Your task to perform on an android device: Open Google Chrome and open the bookmarks view Image 0: 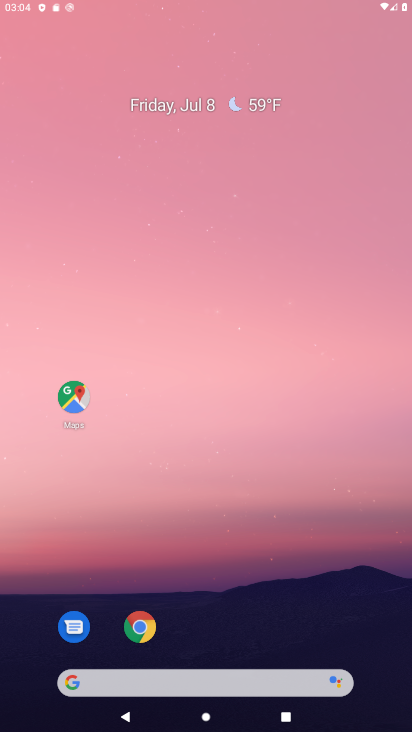
Step 0: press home button
Your task to perform on an android device: Open Google Chrome and open the bookmarks view Image 1: 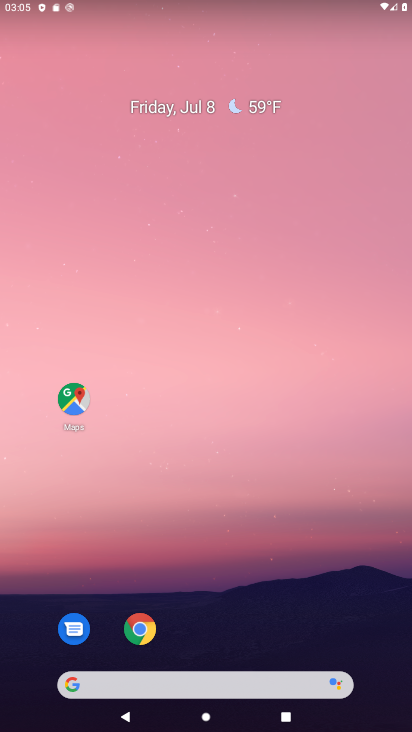
Step 1: click (139, 623)
Your task to perform on an android device: Open Google Chrome and open the bookmarks view Image 2: 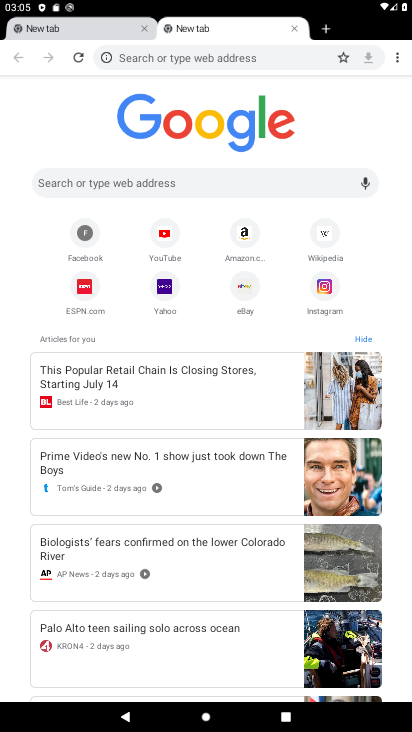
Step 2: click (400, 59)
Your task to perform on an android device: Open Google Chrome and open the bookmarks view Image 3: 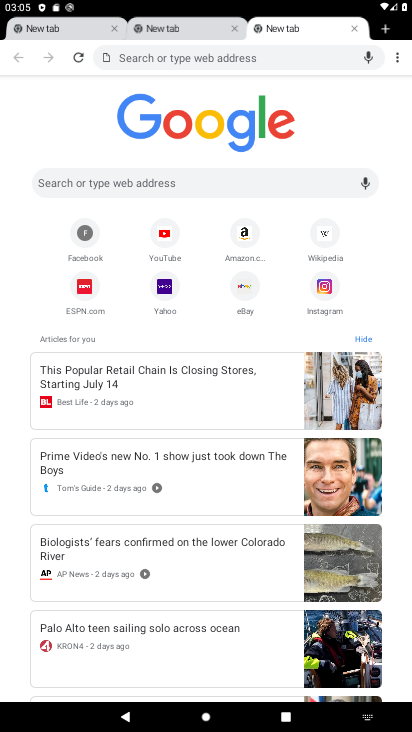
Step 3: click (400, 59)
Your task to perform on an android device: Open Google Chrome and open the bookmarks view Image 4: 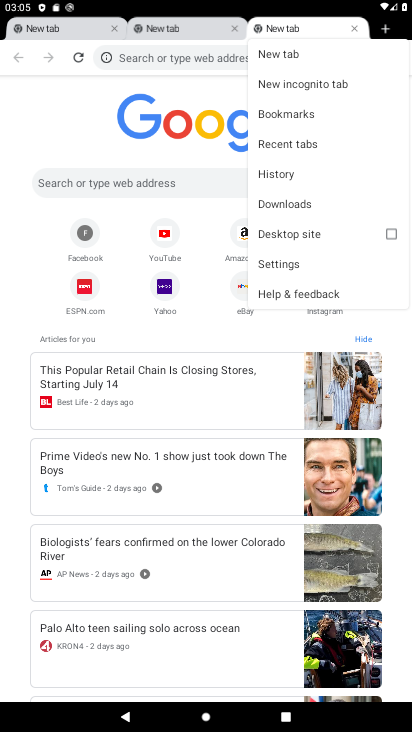
Step 4: click (294, 114)
Your task to perform on an android device: Open Google Chrome and open the bookmarks view Image 5: 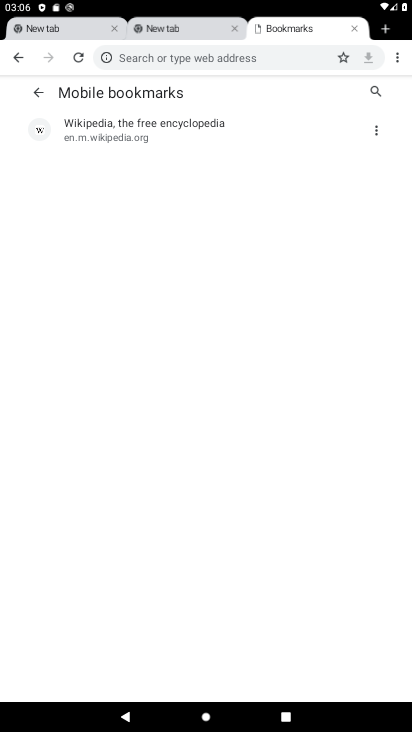
Step 5: task complete